Your task to perform on an android device: Go to location settings Image 0: 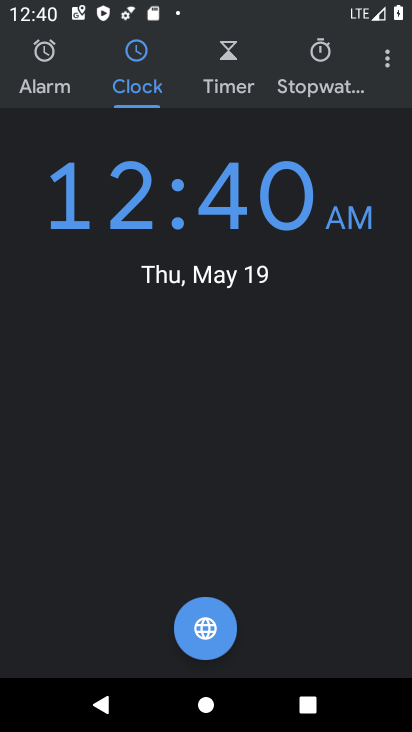
Step 0: press home button
Your task to perform on an android device: Go to location settings Image 1: 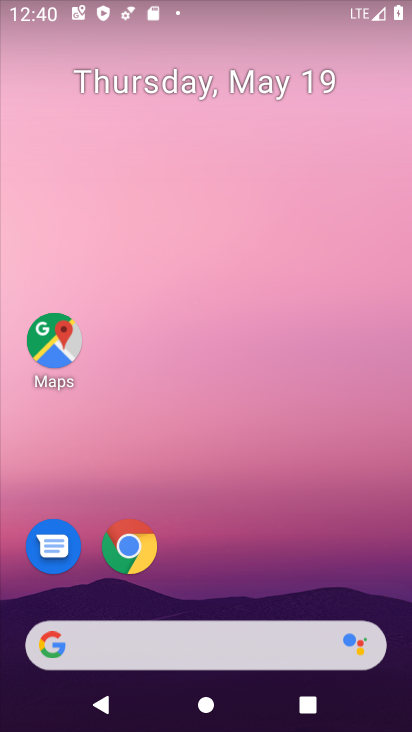
Step 1: drag from (215, 597) to (249, 152)
Your task to perform on an android device: Go to location settings Image 2: 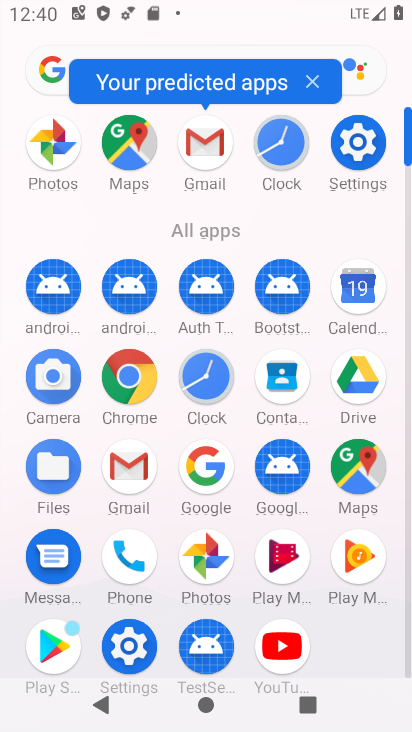
Step 2: click (366, 154)
Your task to perform on an android device: Go to location settings Image 3: 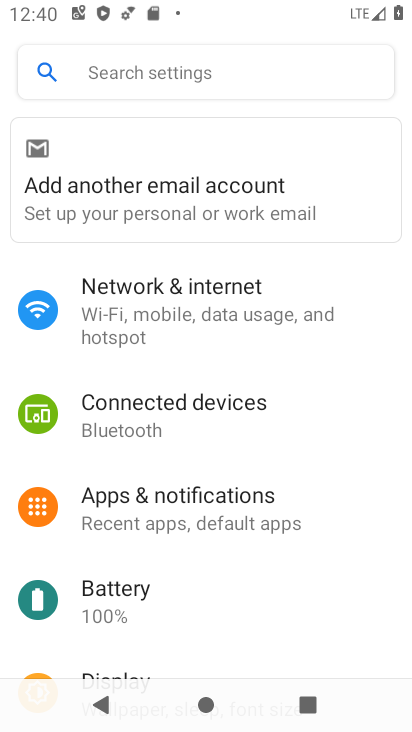
Step 3: drag from (148, 583) to (213, 17)
Your task to perform on an android device: Go to location settings Image 4: 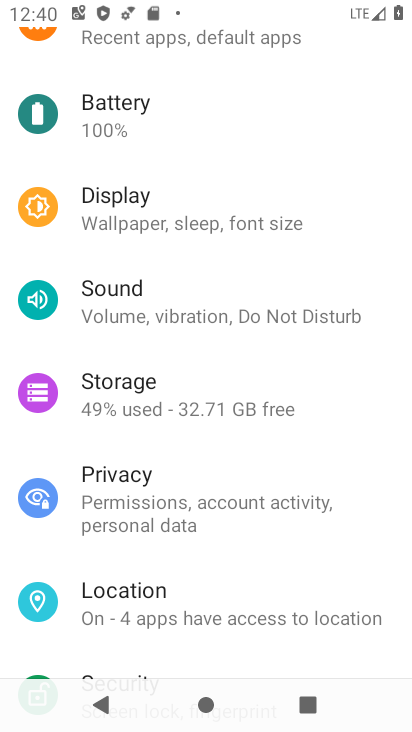
Step 4: click (153, 587)
Your task to perform on an android device: Go to location settings Image 5: 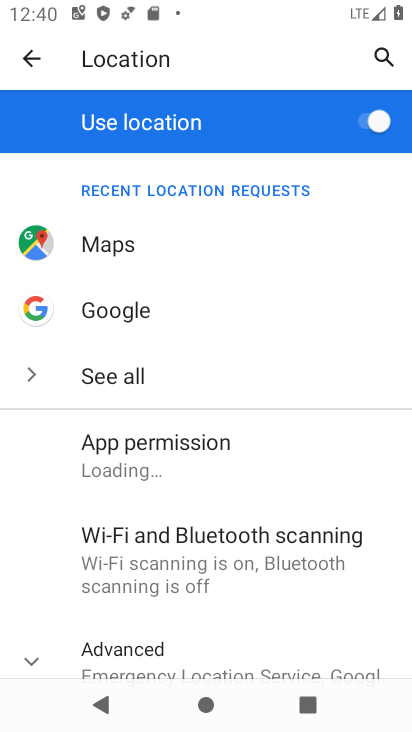
Step 5: task complete